Your task to perform on an android device: Look up the best rated power drills on Lowes.com Image 0: 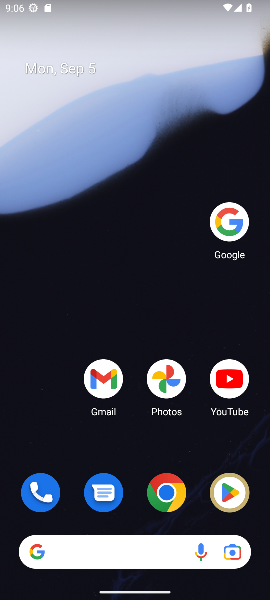
Step 0: click (230, 223)
Your task to perform on an android device: Look up the best rated power drills on Lowes.com Image 1: 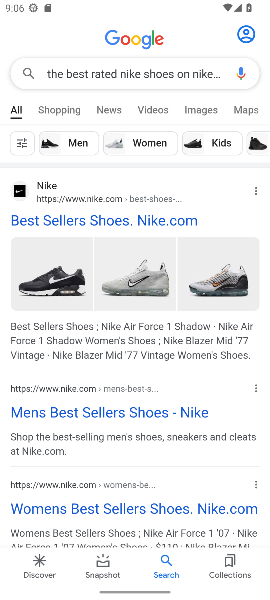
Step 1: click (177, 65)
Your task to perform on an android device: Look up the best rated power drills on Lowes.com Image 2: 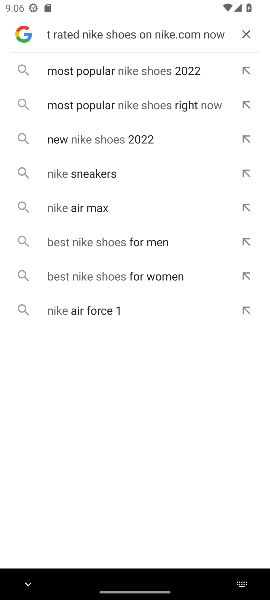
Step 2: click (241, 36)
Your task to perform on an android device: Look up the best rated power drills on Lowes.com Image 3: 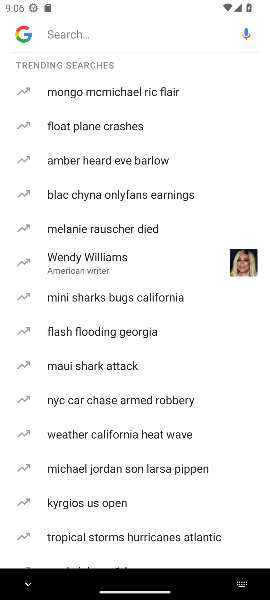
Step 3: click (91, 23)
Your task to perform on an android device: Look up the best rated power drills on Lowes.com Image 4: 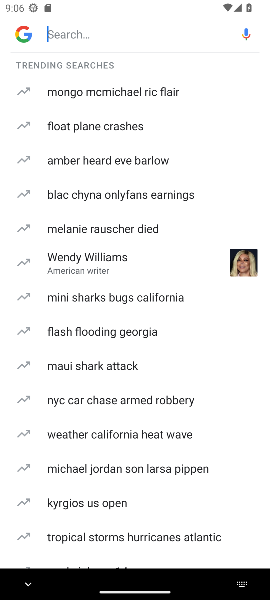
Step 4: type "the best rated power drills on Lowes.com "
Your task to perform on an android device: Look up the best rated power drills on Lowes.com Image 5: 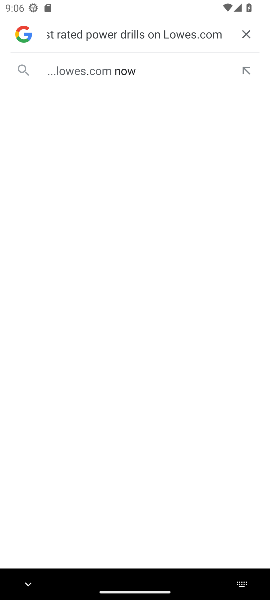
Step 5: click (115, 69)
Your task to perform on an android device: Look up the best rated power drills on Lowes.com Image 6: 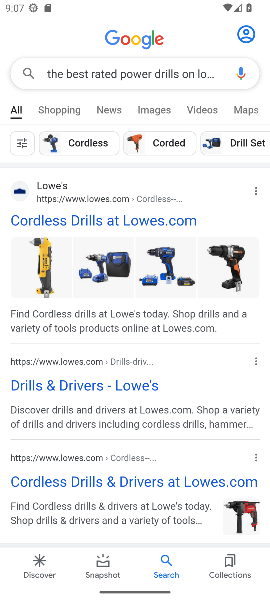
Step 6: click (124, 212)
Your task to perform on an android device: Look up the best rated power drills on Lowes.com Image 7: 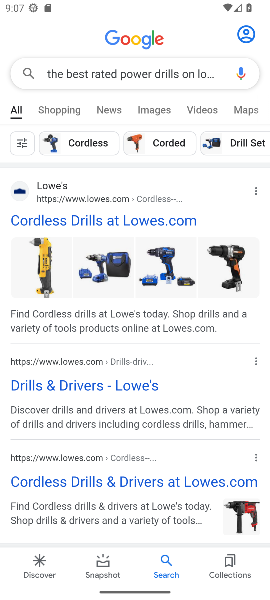
Step 7: click (124, 217)
Your task to perform on an android device: Look up the best rated power drills on Lowes.com Image 8: 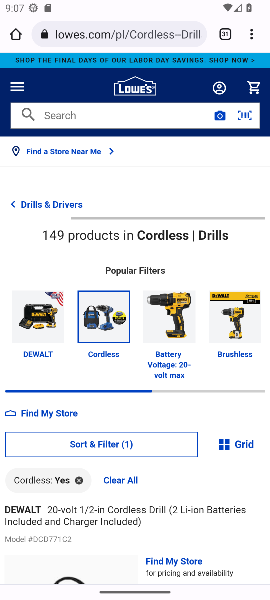
Step 8: task complete